Your task to perform on an android device: turn on improve location accuracy Image 0: 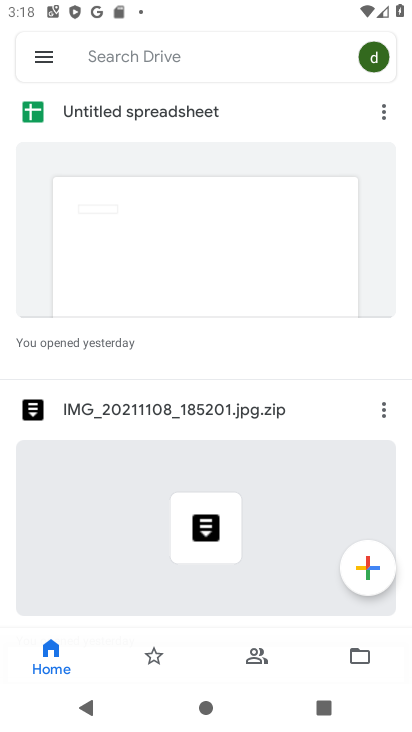
Step 0: press home button
Your task to perform on an android device: turn on improve location accuracy Image 1: 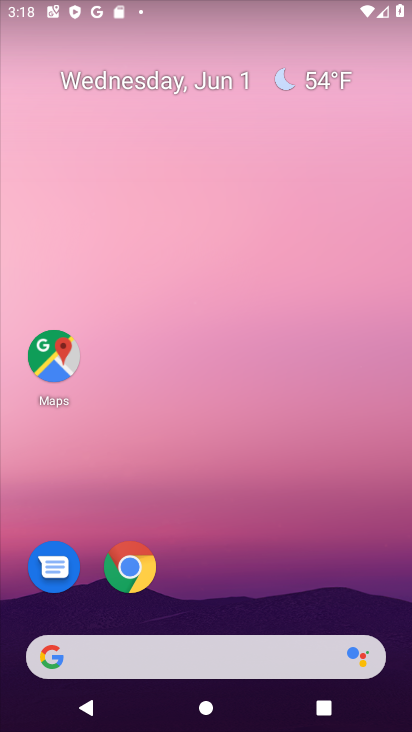
Step 1: drag from (194, 618) to (293, 183)
Your task to perform on an android device: turn on improve location accuracy Image 2: 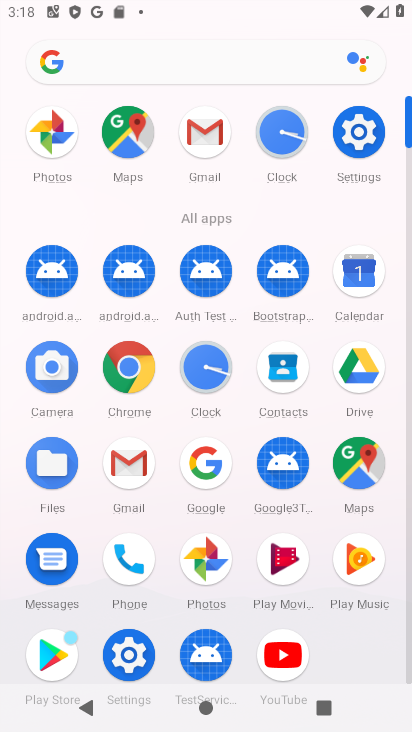
Step 2: click (124, 659)
Your task to perform on an android device: turn on improve location accuracy Image 3: 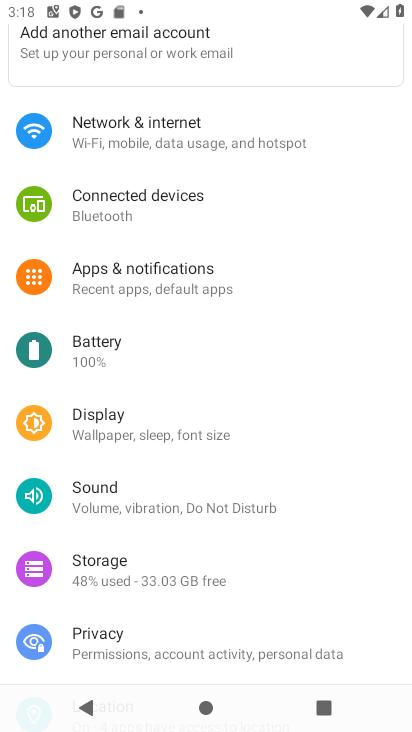
Step 3: drag from (197, 555) to (278, 312)
Your task to perform on an android device: turn on improve location accuracy Image 4: 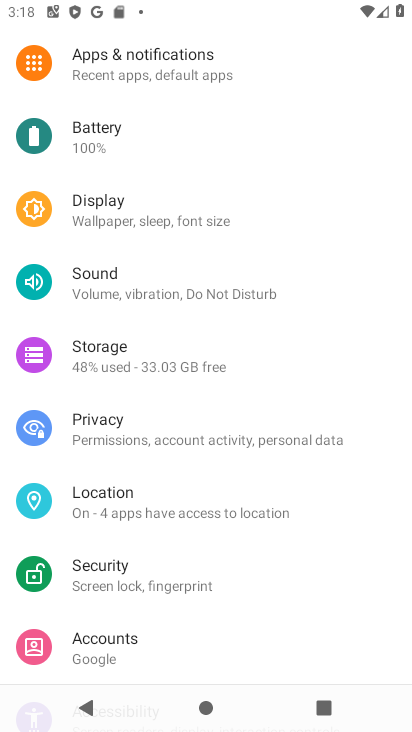
Step 4: click (193, 508)
Your task to perform on an android device: turn on improve location accuracy Image 5: 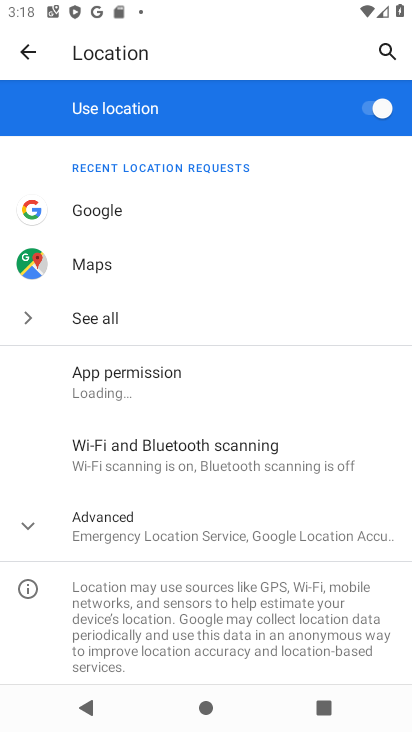
Step 5: click (191, 533)
Your task to perform on an android device: turn on improve location accuracy Image 6: 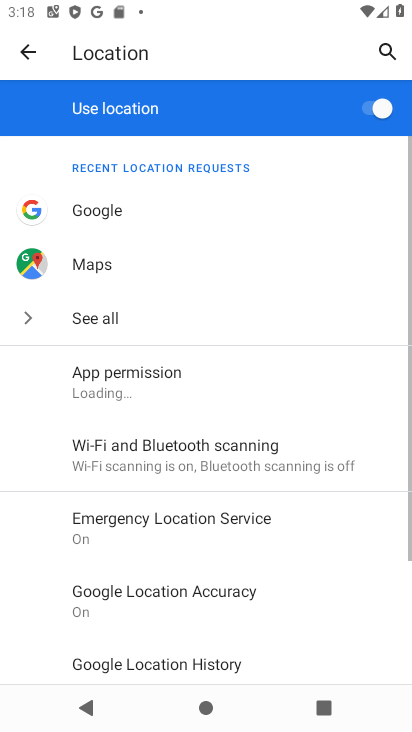
Step 6: drag from (193, 569) to (277, 402)
Your task to perform on an android device: turn on improve location accuracy Image 7: 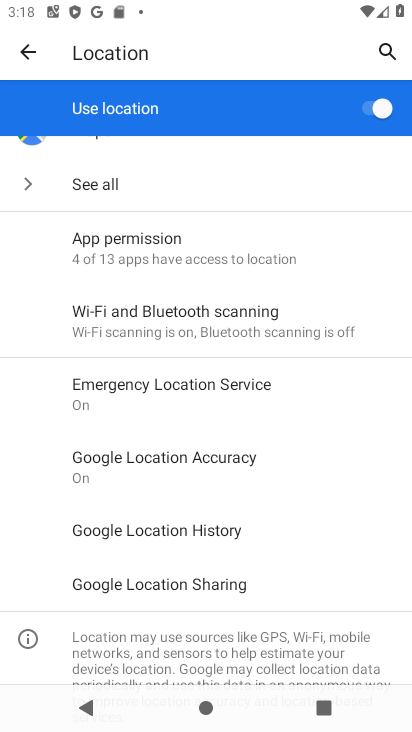
Step 7: click (249, 479)
Your task to perform on an android device: turn on improve location accuracy Image 8: 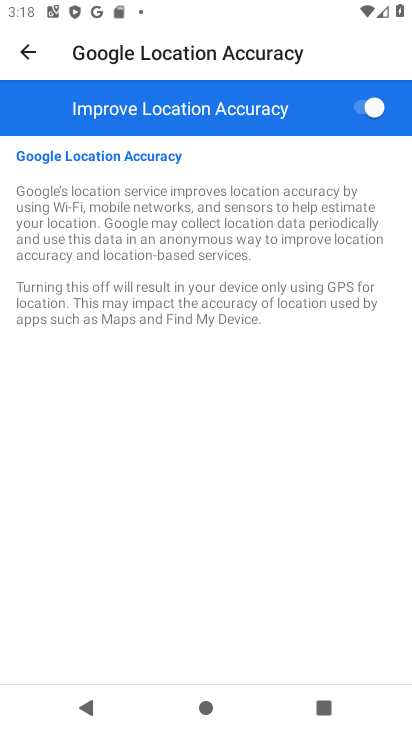
Step 8: task complete